Your task to perform on an android device: open a bookmark in the chrome app Image 0: 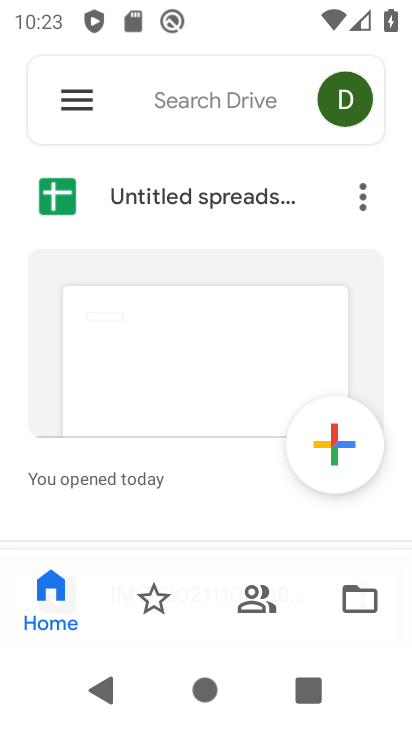
Step 0: press home button
Your task to perform on an android device: open a bookmark in the chrome app Image 1: 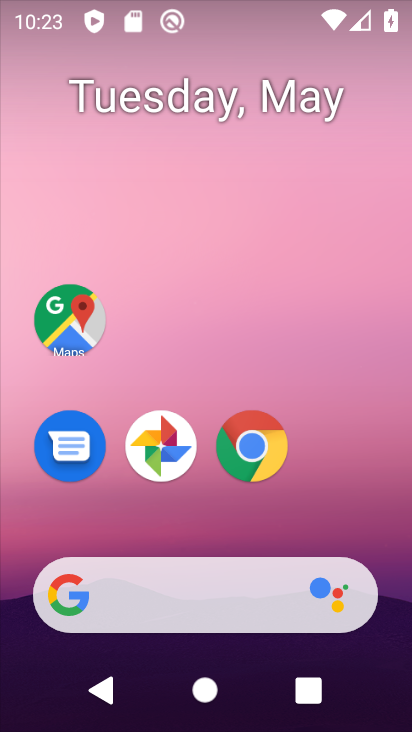
Step 1: click (248, 462)
Your task to perform on an android device: open a bookmark in the chrome app Image 2: 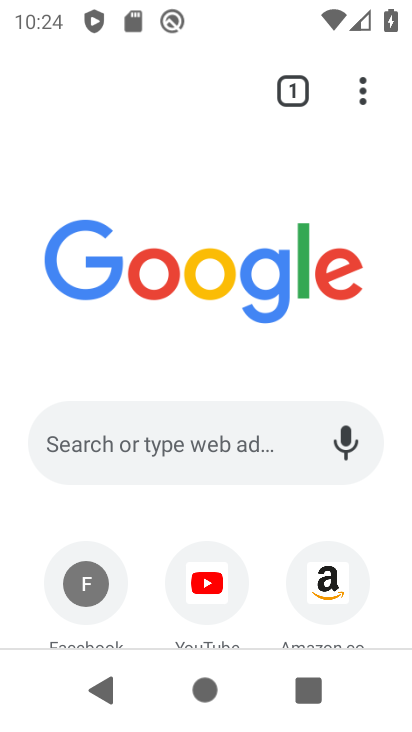
Step 2: task complete